Your task to perform on an android device: Open internet settings Image 0: 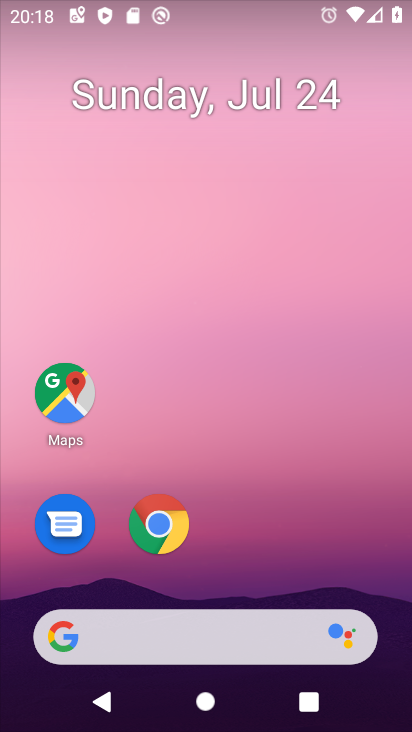
Step 0: drag from (279, 568) to (261, 38)
Your task to perform on an android device: Open internet settings Image 1: 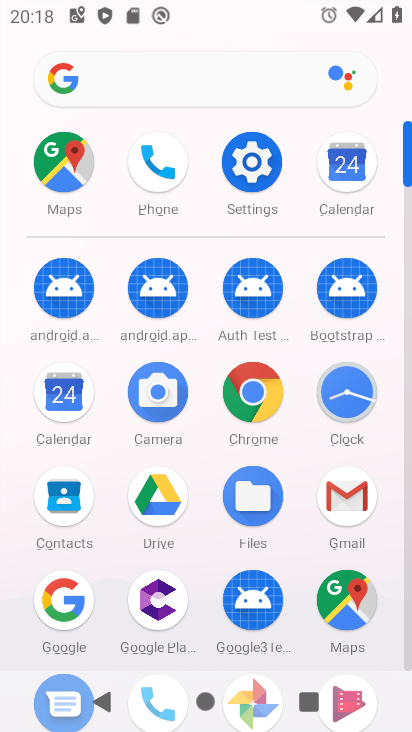
Step 1: click (262, 166)
Your task to perform on an android device: Open internet settings Image 2: 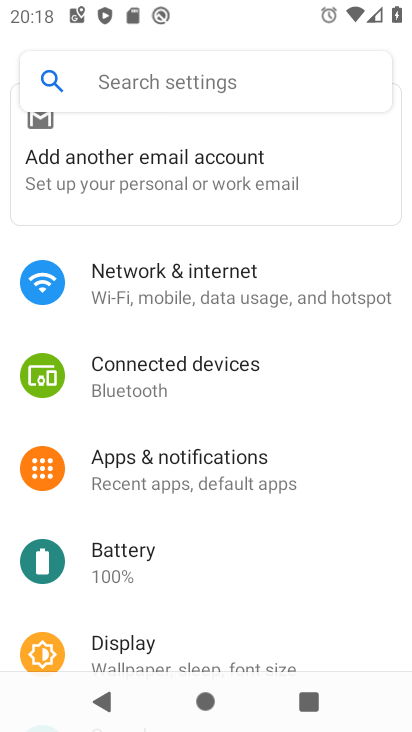
Step 2: click (239, 269)
Your task to perform on an android device: Open internet settings Image 3: 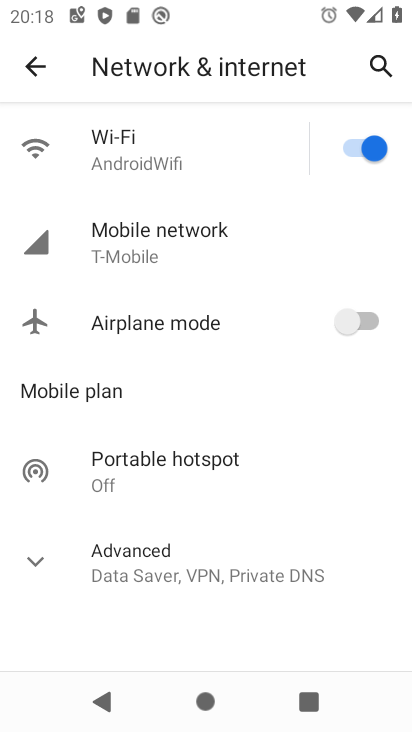
Step 3: task complete